Your task to perform on an android device: Show the shopping cart on amazon.com. Search for bose soundlink mini on amazon.com, select the first entry, and add it to the cart. Image 0: 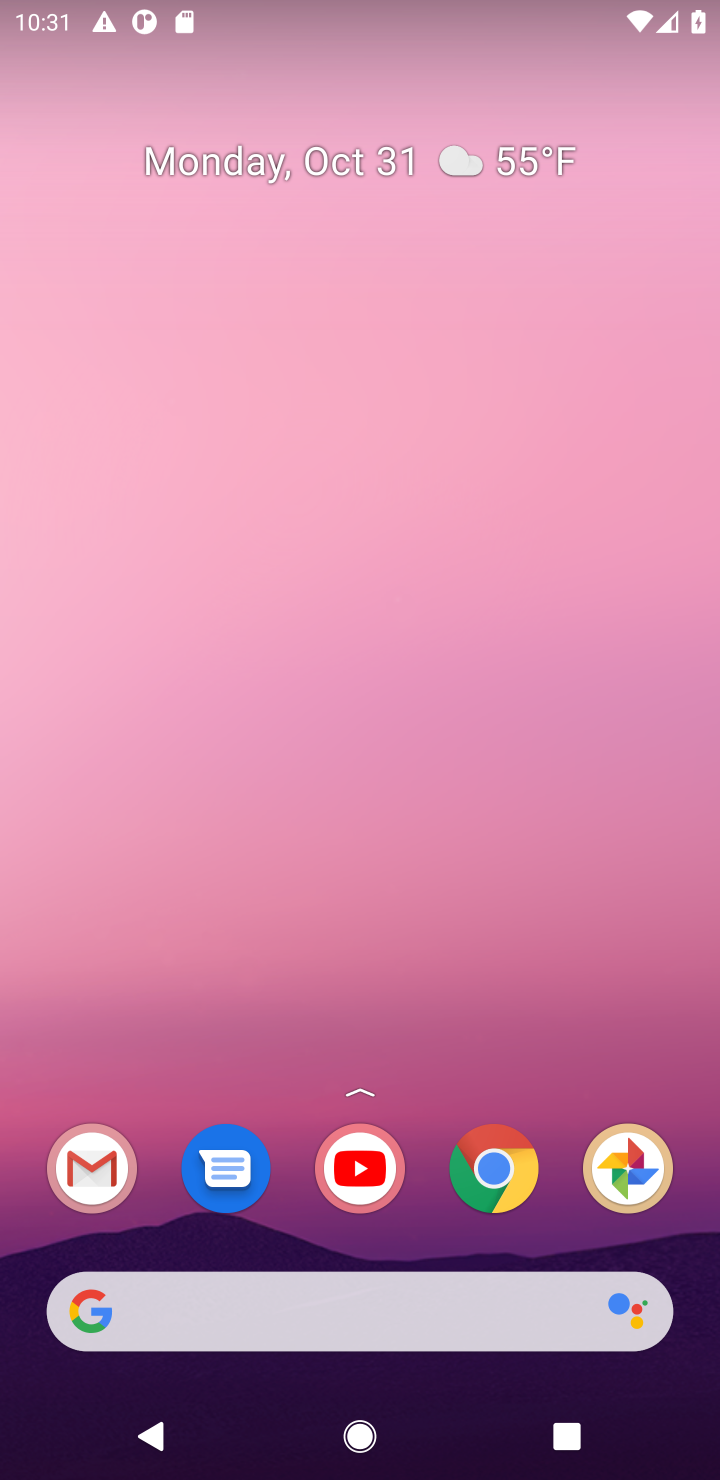
Step 0: click (479, 1157)
Your task to perform on an android device: Show the shopping cart on amazon.com. Search for bose soundlink mini on amazon.com, select the first entry, and add it to the cart. Image 1: 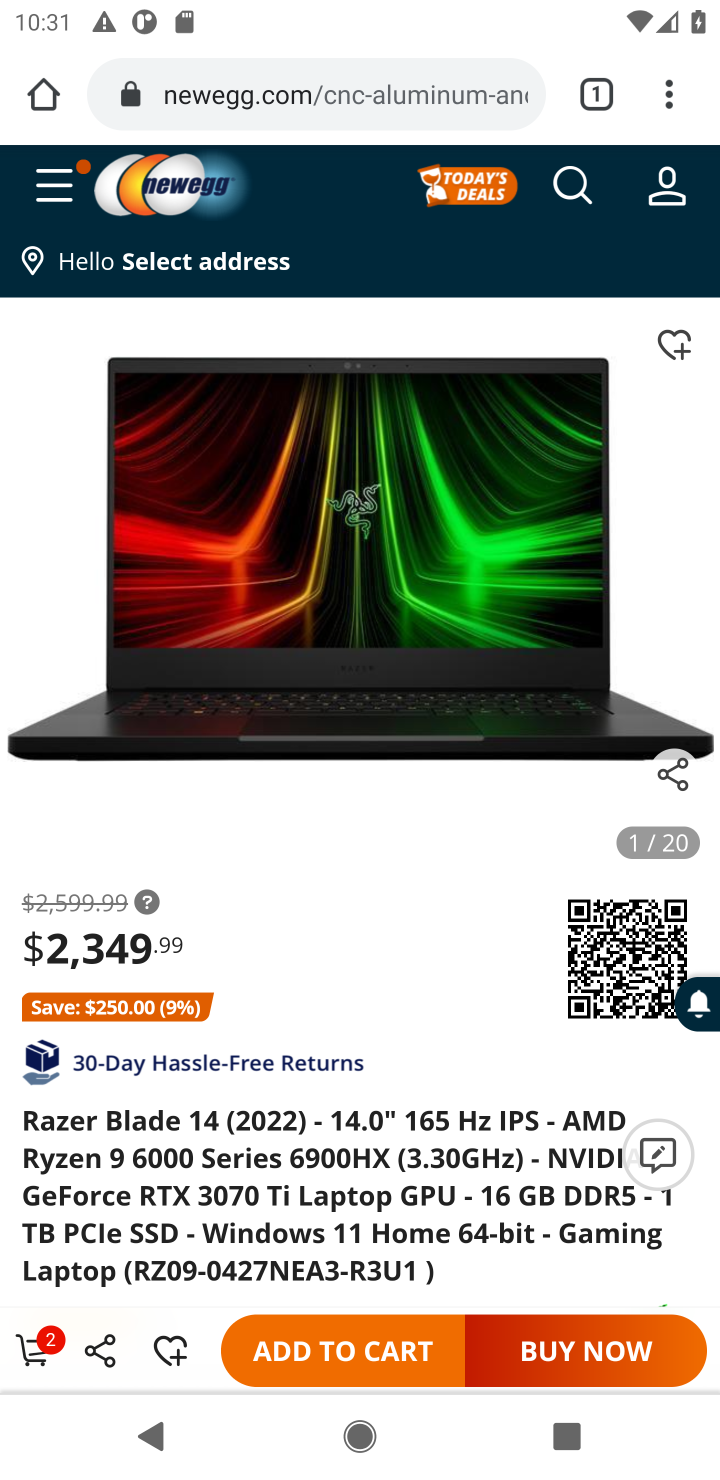
Step 1: click (318, 100)
Your task to perform on an android device: Show the shopping cart on amazon.com. Search for bose soundlink mini on amazon.com, select the first entry, and add it to the cart. Image 2: 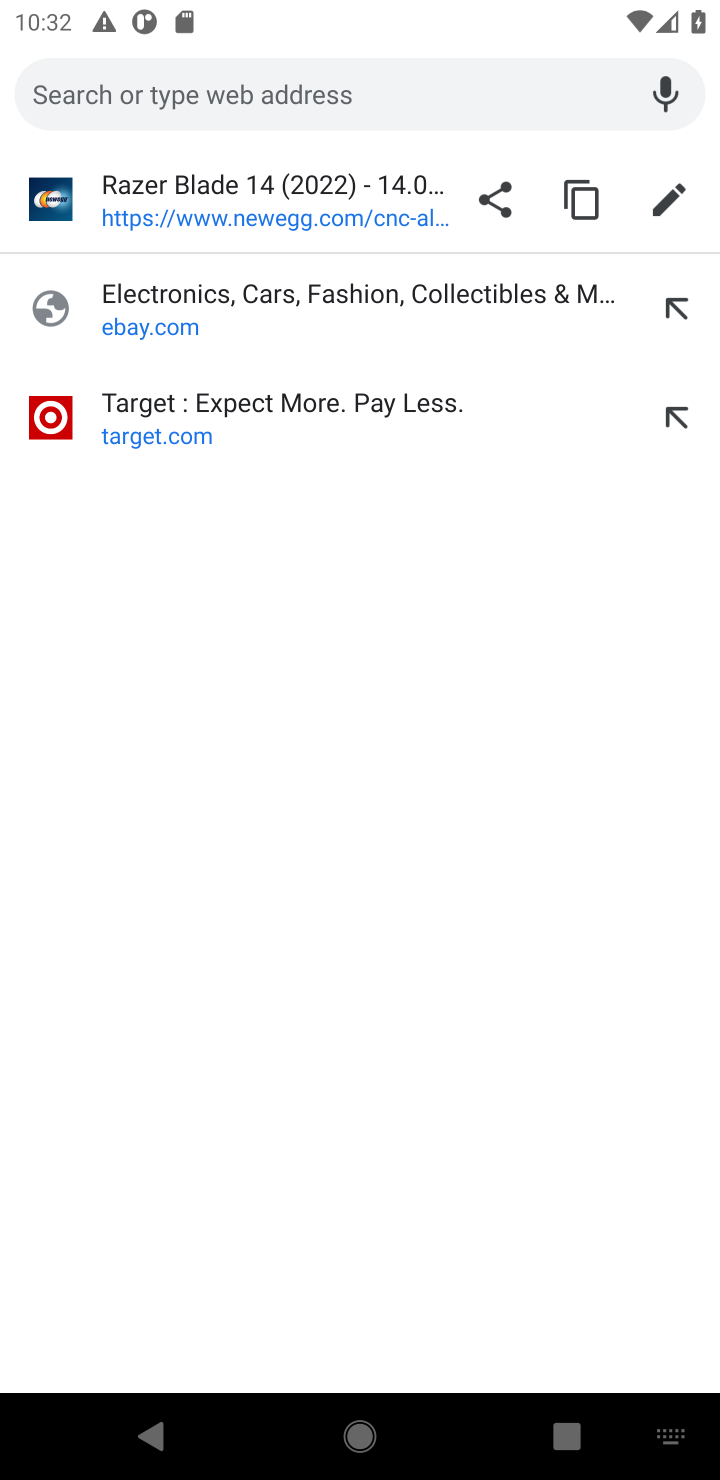
Step 2: click (238, 96)
Your task to perform on an android device: Show the shopping cart on amazon.com. Search for bose soundlink mini on amazon.com, select the first entry, and add it to the cart. Image 3: 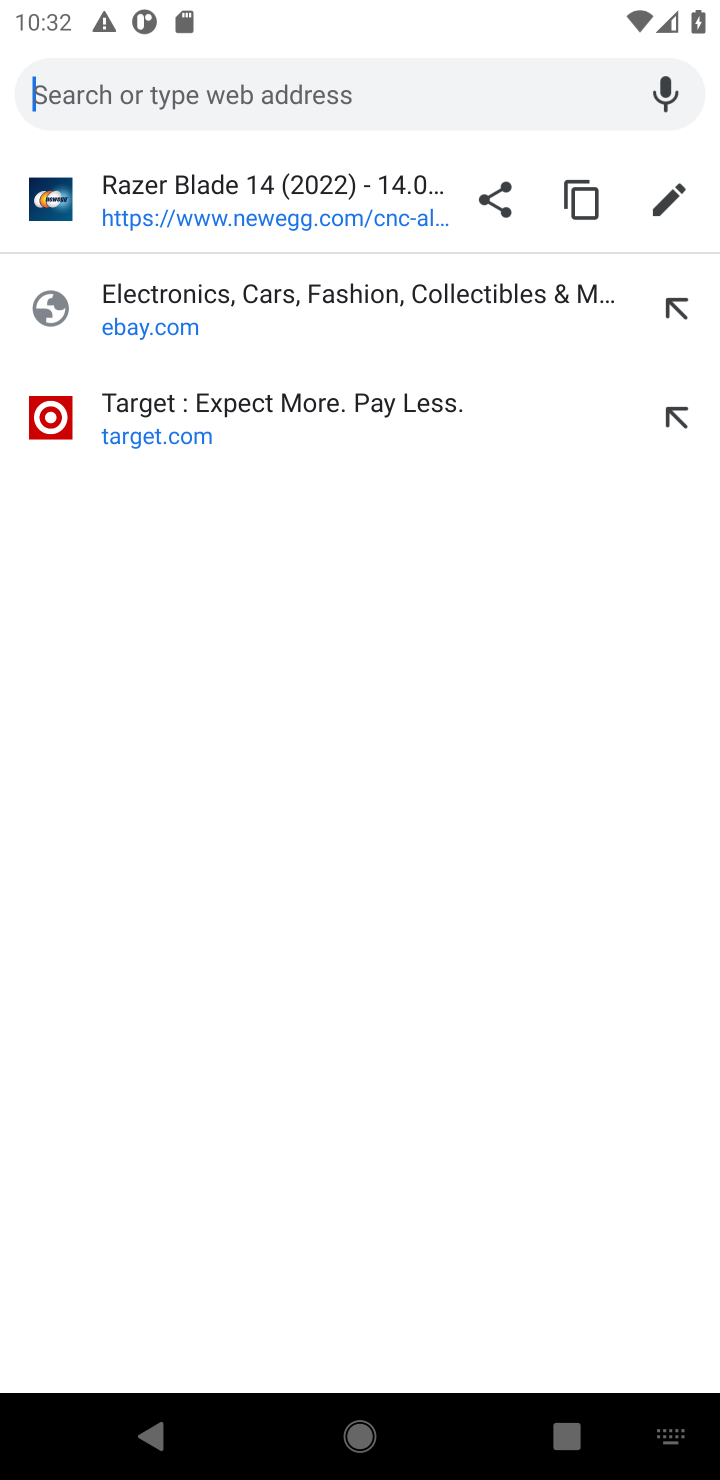
Step 3: type "amazon.com"
Your task to perform on an android device: Show the shopping cart on amazon.com. Search for bose soundlink mini on amazon.com, select the first entry, and add it to the cart. Image 4: 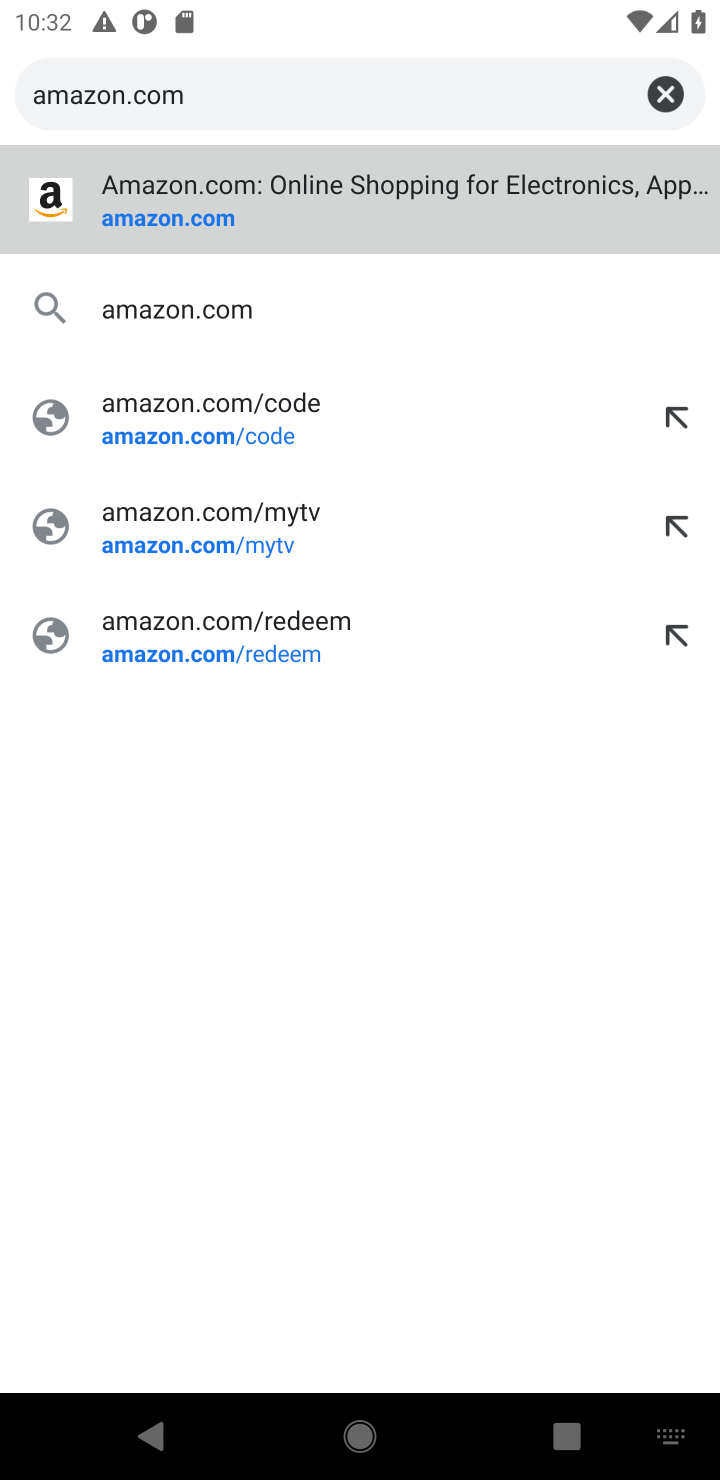
Step 4: click (398, 218)
Your task to perform on an android device: Show the shopping cart on amazon.com. Search for bose soundlink mini on amazon.com, select the first entry, and add it to the cart. Image 5: 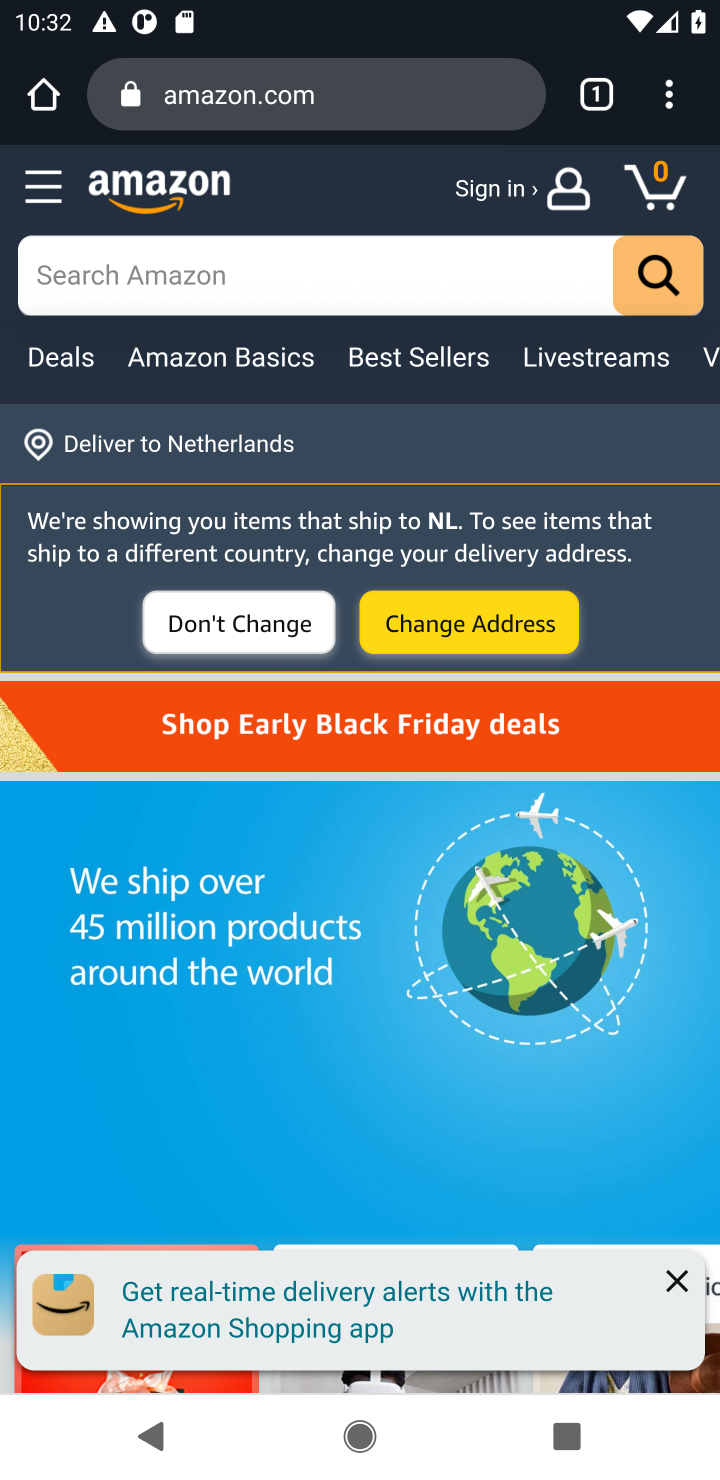
Step 5: click (653, 195)
Your task to perform on an android device: Show the shopping cart on amazon.com. Search for bose soundlink mini on amazon.com, select the first entry, and add it to the cart. Image 6: 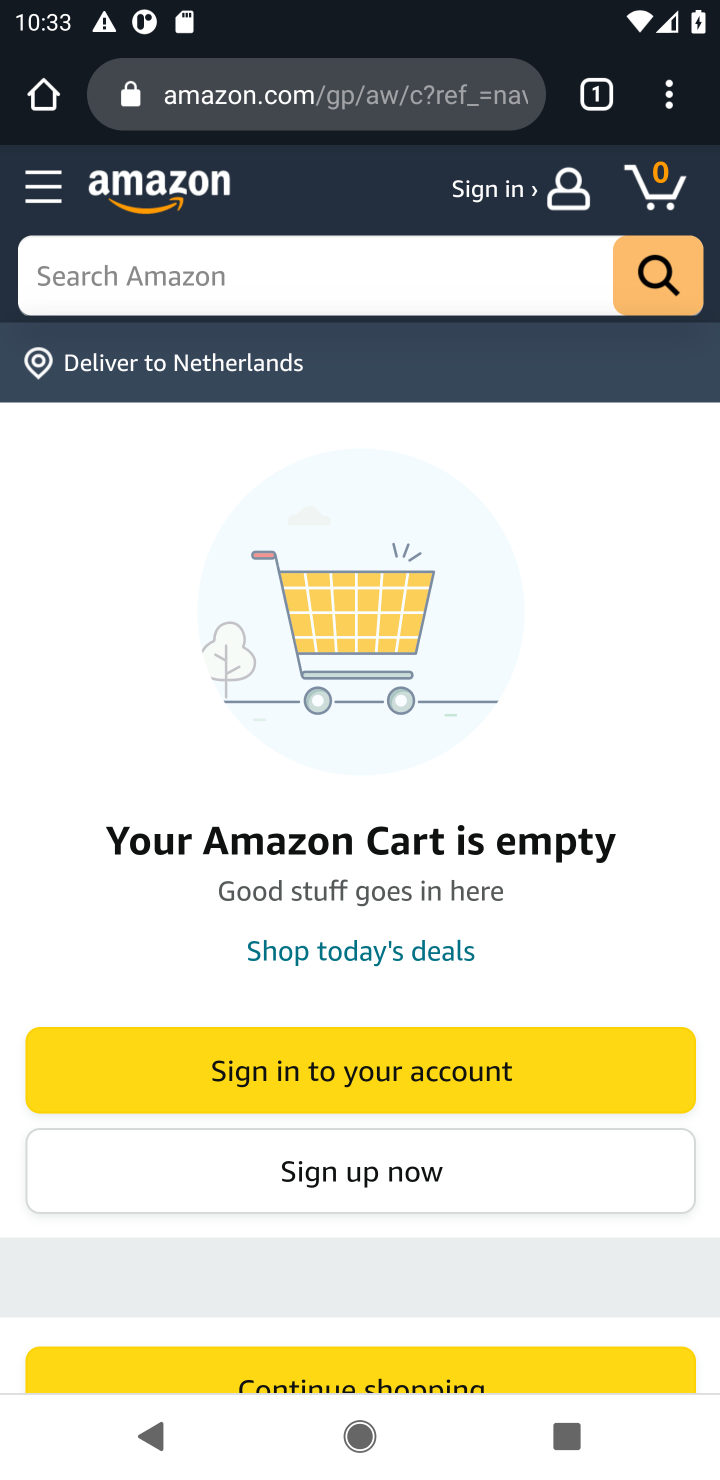
Step 6: click (289, 285)
Your task to perform on an android device: Show the shopping cart on amazon.com. Search for bose soundlink mini on amazon.com, select the first entry, and add it to the cart. Image 7: 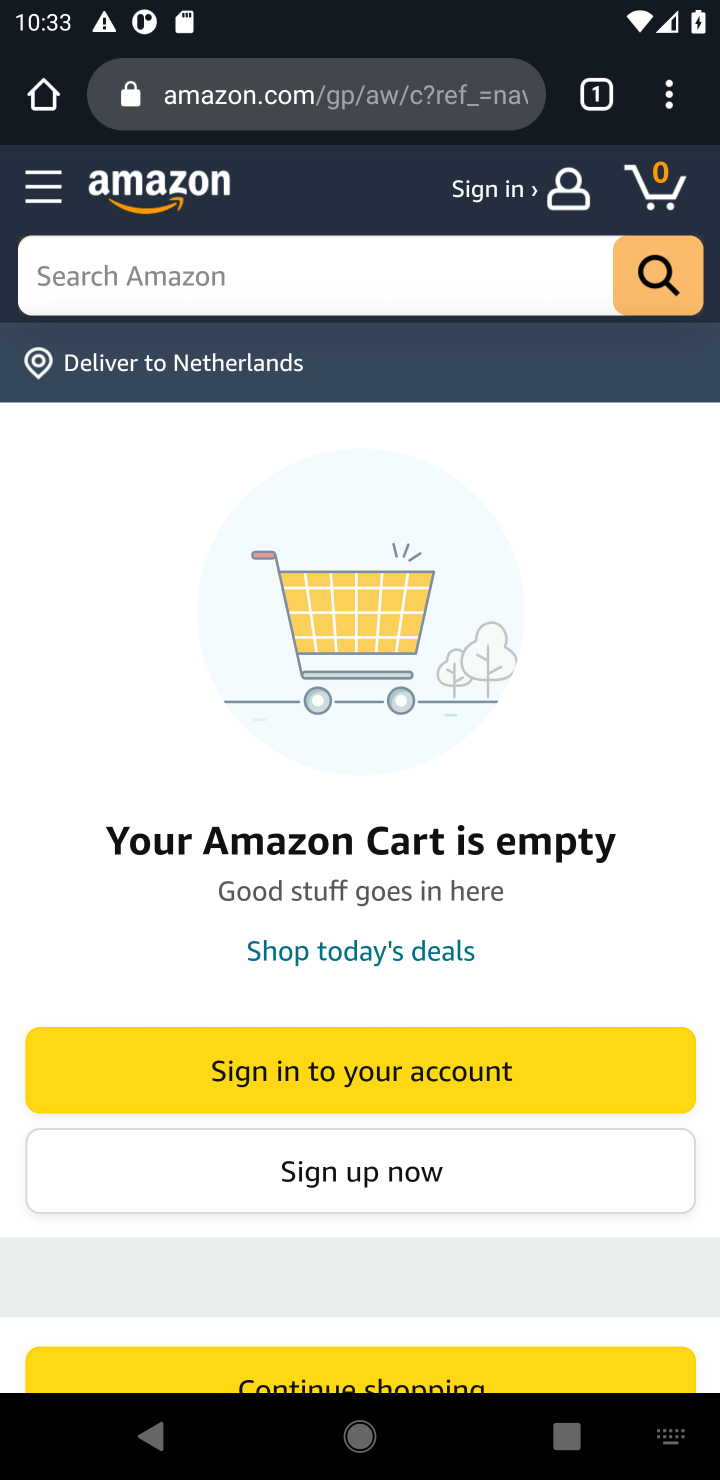
Step 7: type "bose soundlink mini"
Your task to perform on an android device: Show the shopping cart on amazon.com. Search for bose soundlink mini on amazon.com, select the first entry, and add it to the cart. Image 8: 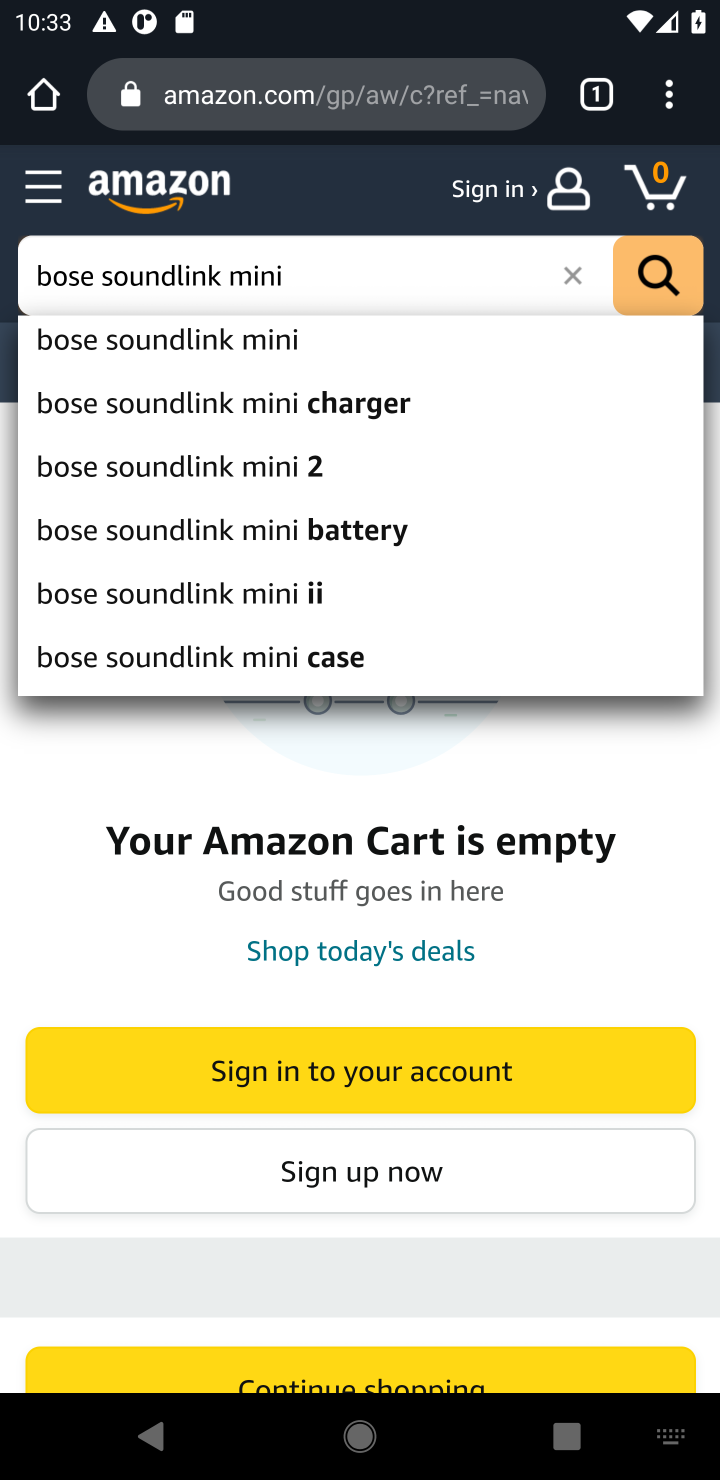
Step 8: press enter
Your task to perform on an android device: Show the shopping cart on amazon.com. Search for bose soundlink mini on amazon.com, select the first entry, and add it to the cart. Image 9: 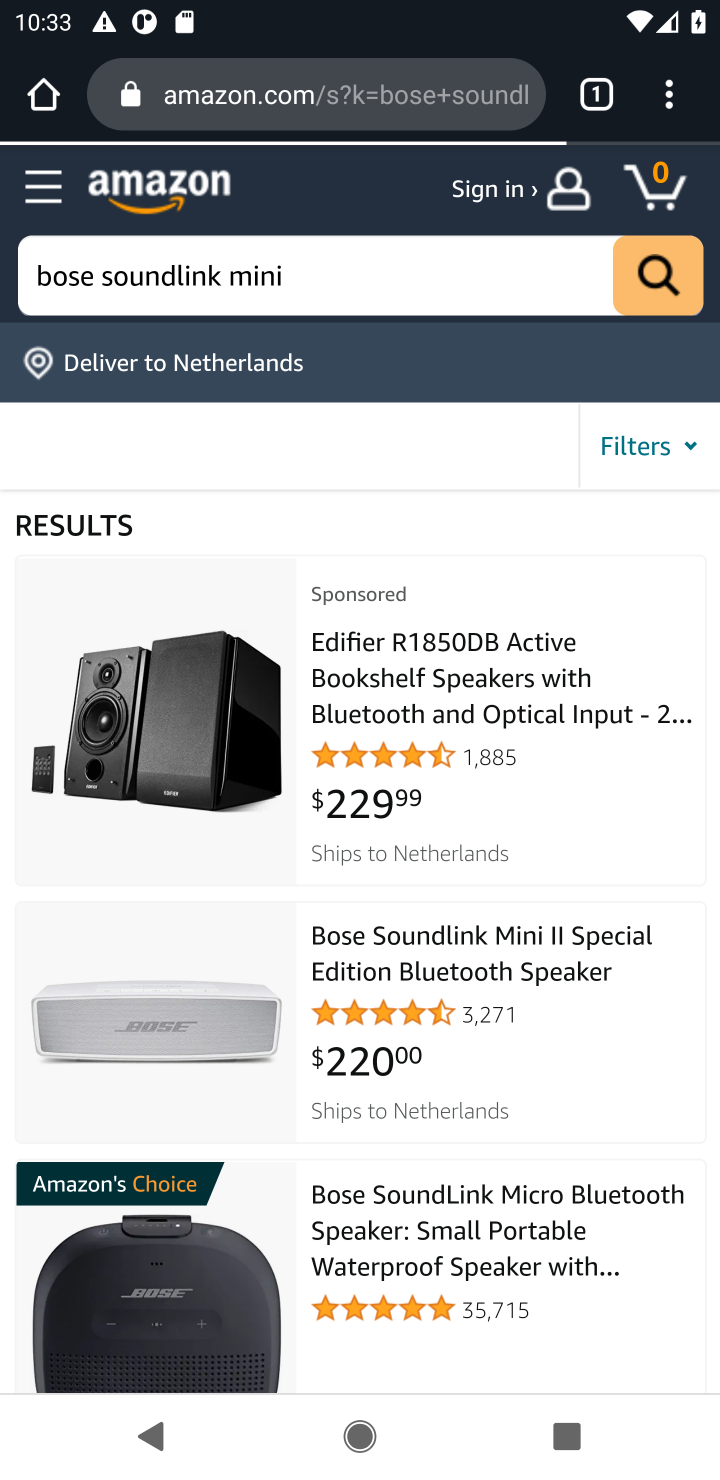
Step 9: click (468, 636)
Your task to perform on an android device: Show the shopping cart on amazon.com. Search for bose soundlink mini on amazon.com, select the first entry, and add it to the cart. Image 10: 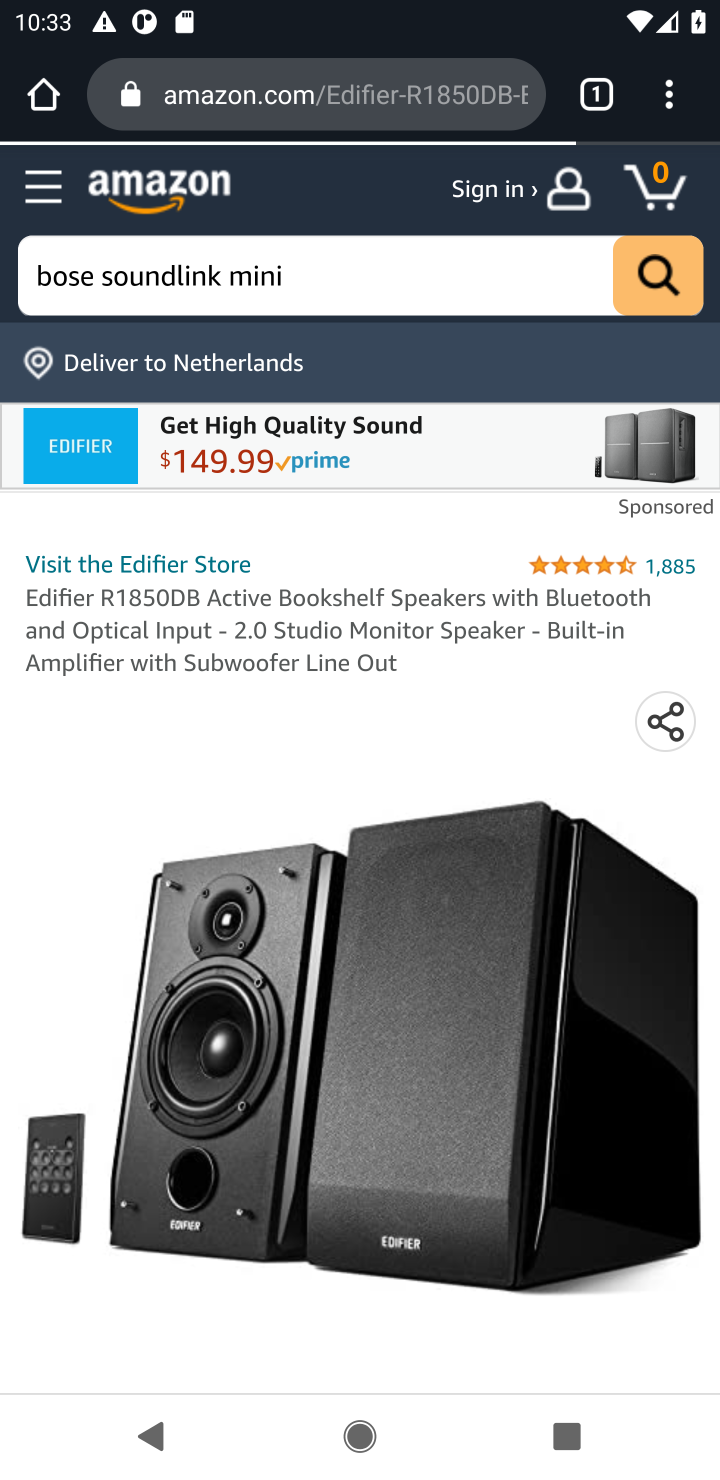
Step 10: drag from (444, 709) to (401, 271)
Your task to perform on an android device: Show the shopping cart on amazon.com. Search for bose soundlink mini on amazon.com, select the first entry, and add it to the cart. Image 11: 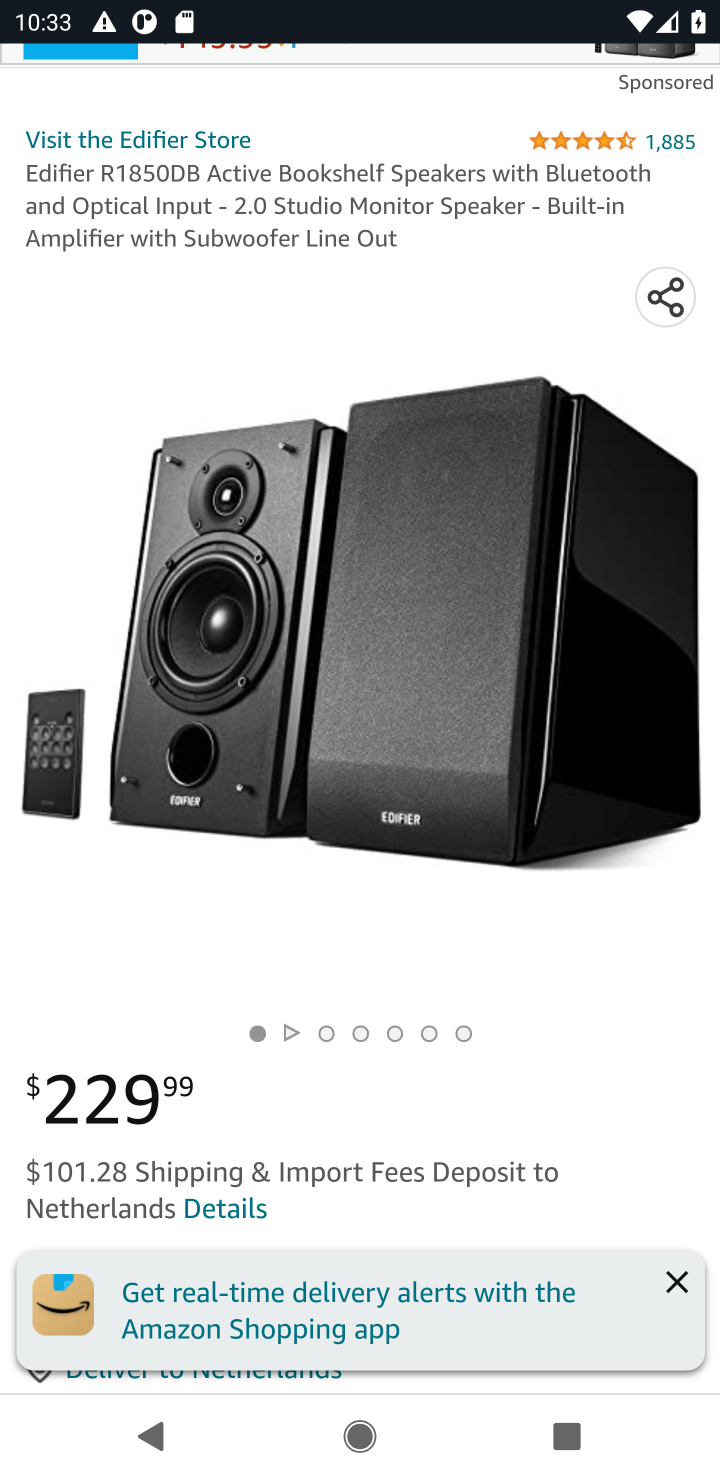
Step 11: drag from (397, 1082) to (423, 874)
Your task to perform on an android device: Show the shopping cart on amazon.com. Search for bose soundlink mini on amazon.com, select the first entry, and add it to the cart. Image 12: 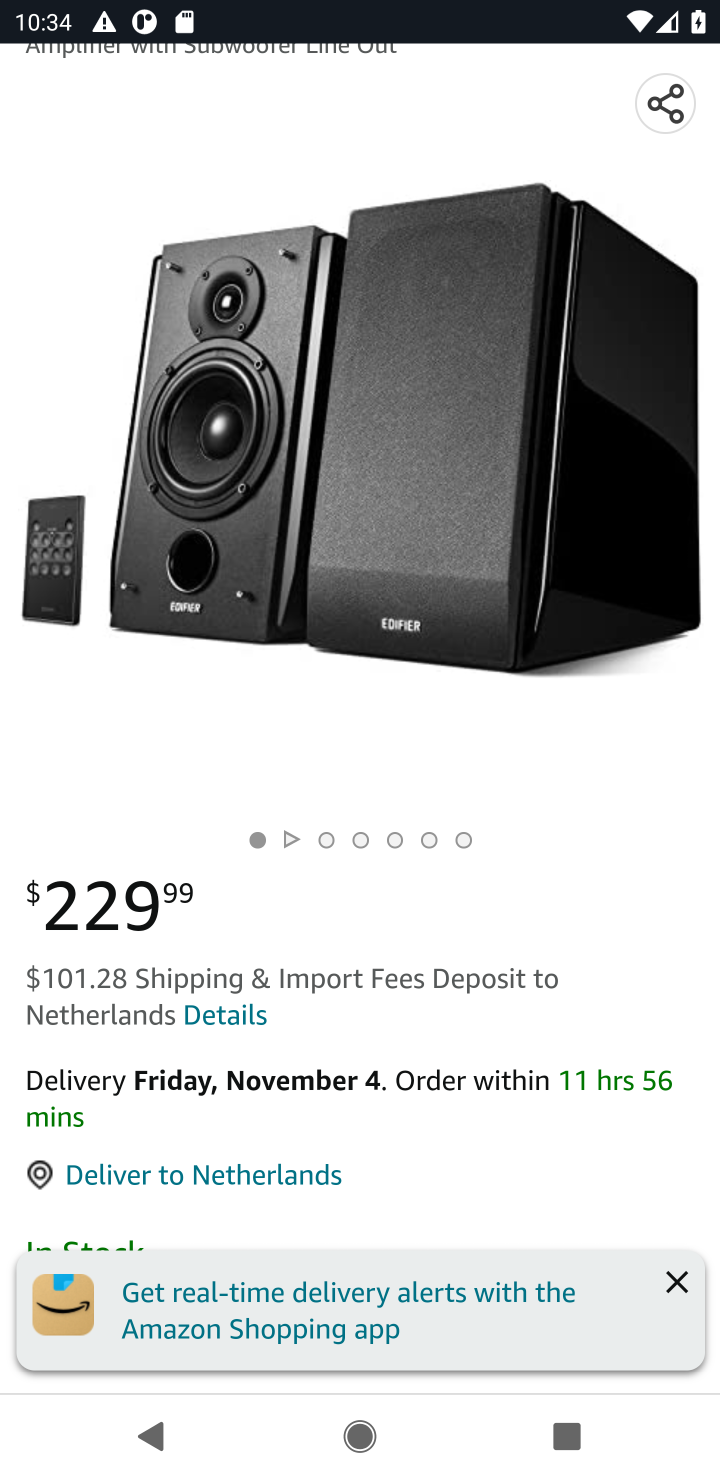
Step 12: drag from (447, 1170) to (411, 840)
Your task to perform on an android device: Show the shopping cart on amazon.com. Search for bose soundlink mini on amazon.com, select the first entry, and add it to the cart. Image 13: 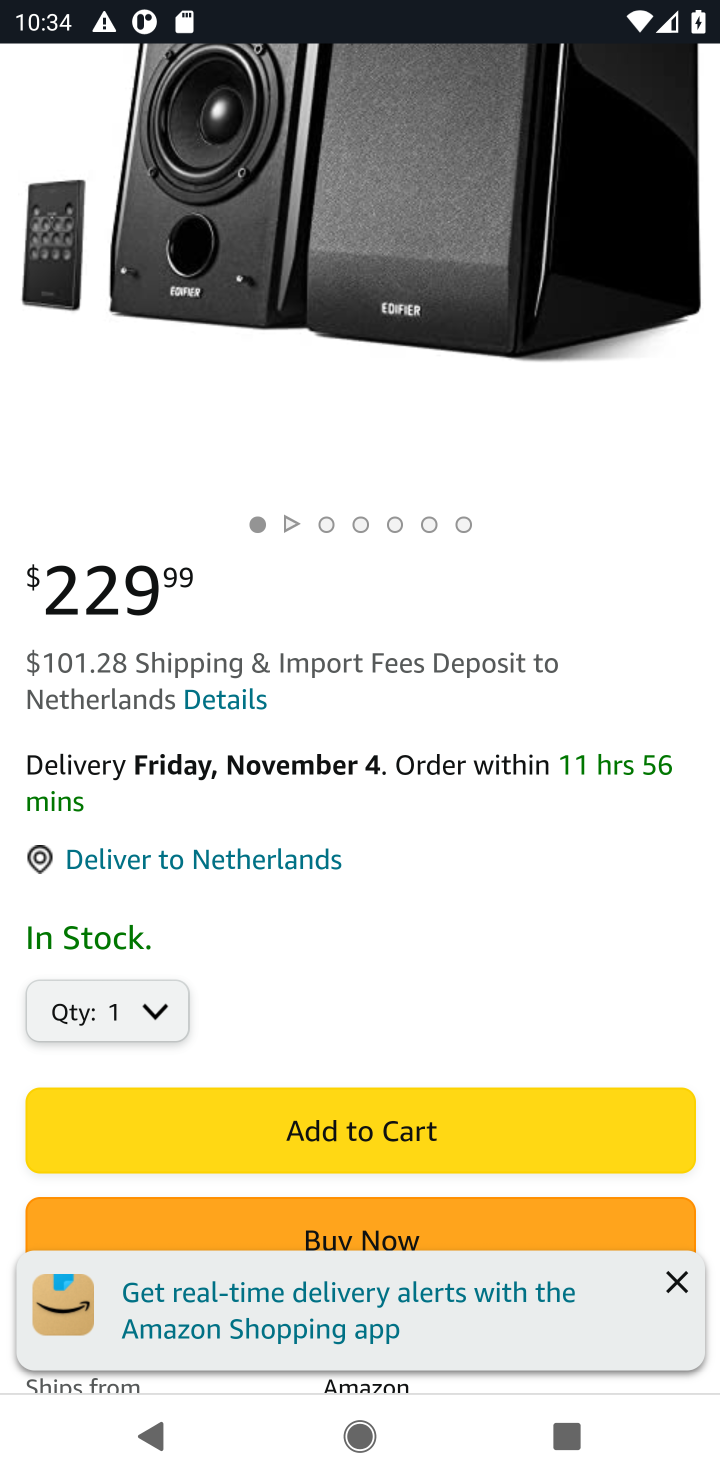
Step 13: click (405, 1127)
Your task to perform on an android device: Show the shopping cart on amazon.com. Search for bose soundlink mini on amazon.com, select the first entry, and add it to the cart. Image 14: 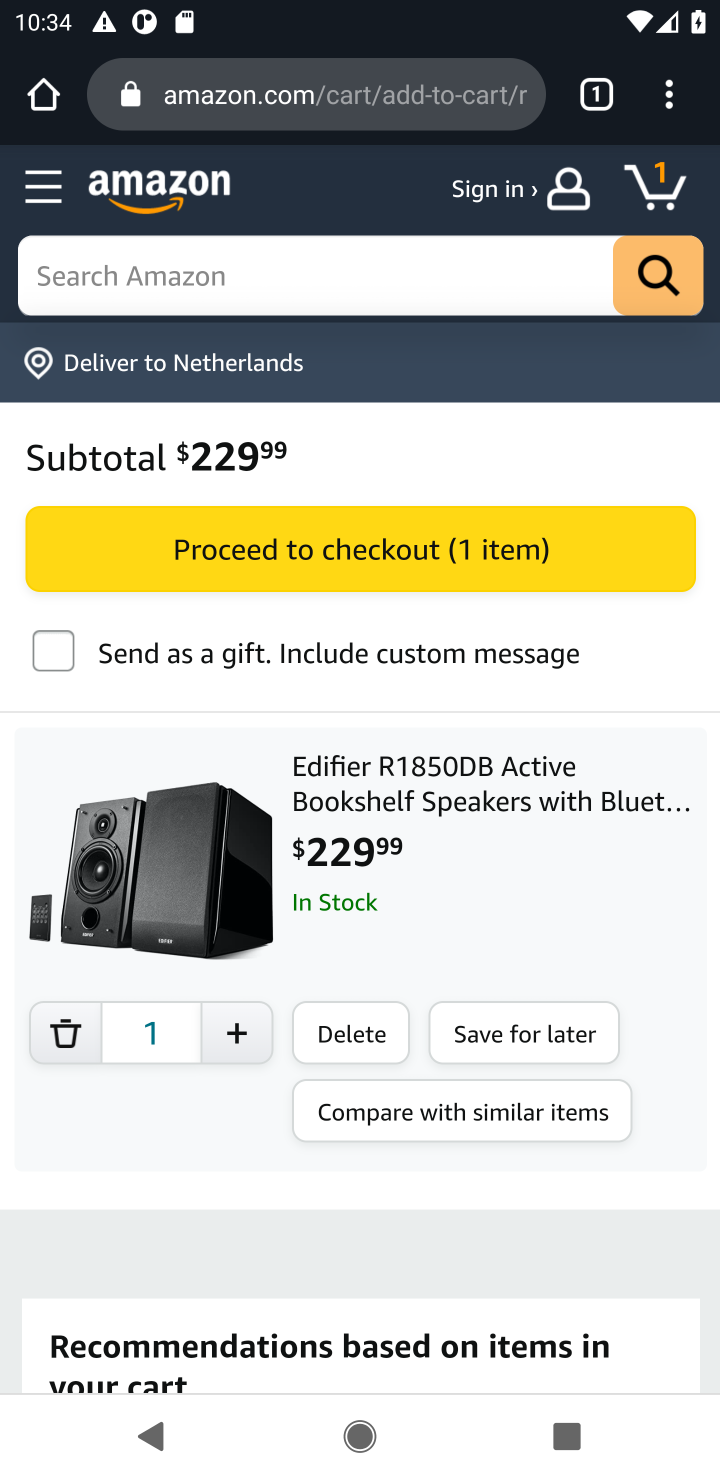
Step 14: task complete